Your task to perform on an android device: remove spam from my inbox in the gmail app Image 0: 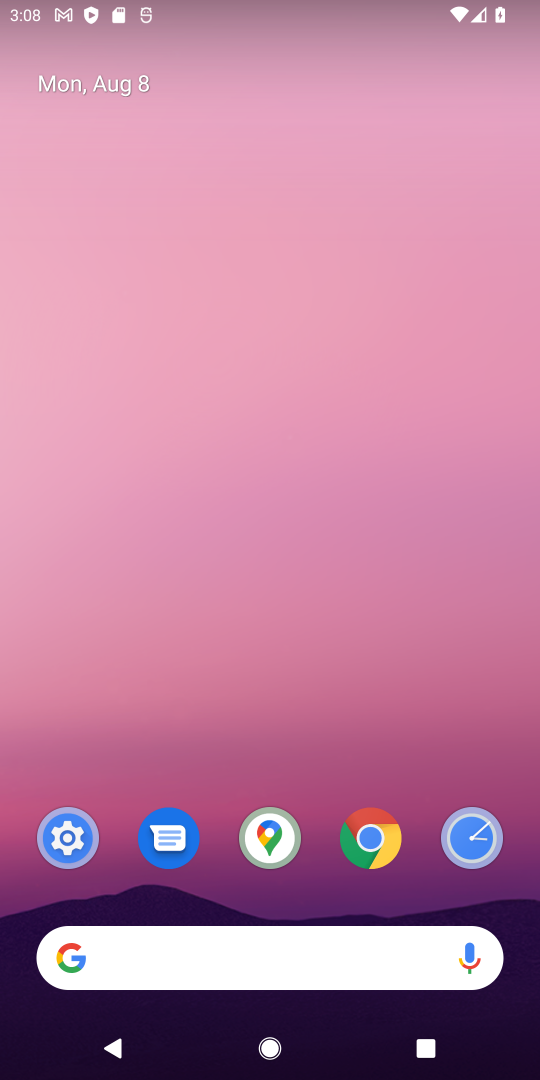
Step 0: drag from (235, 959) to (253, 301)
Your task to perform on an android device: remove spam from my inbox in the gmail app Image 1: 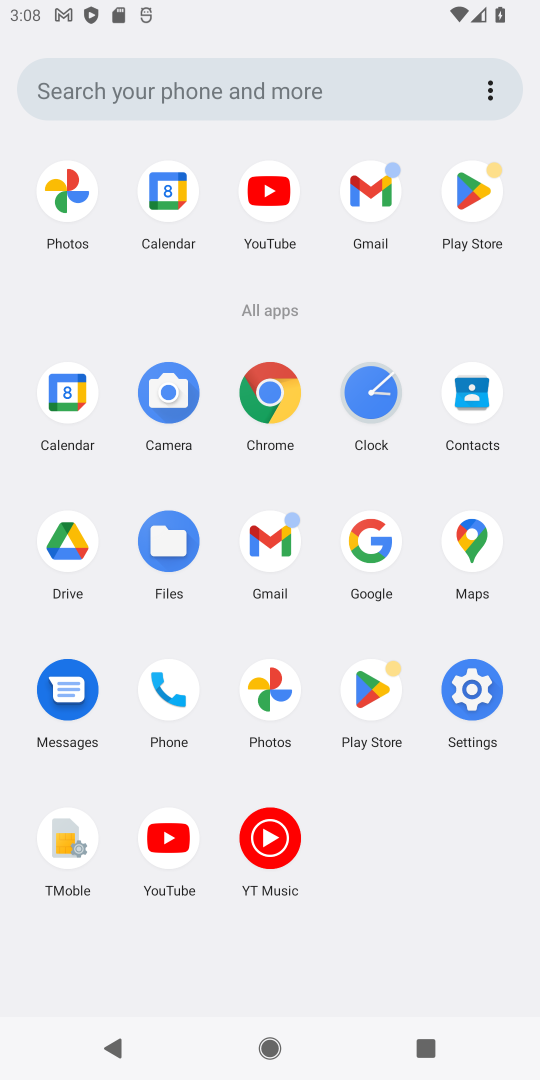
Step 1: click (372, 192)
Your task to perform on an android device: remove spam from my inbox in the gmail app Image 2: 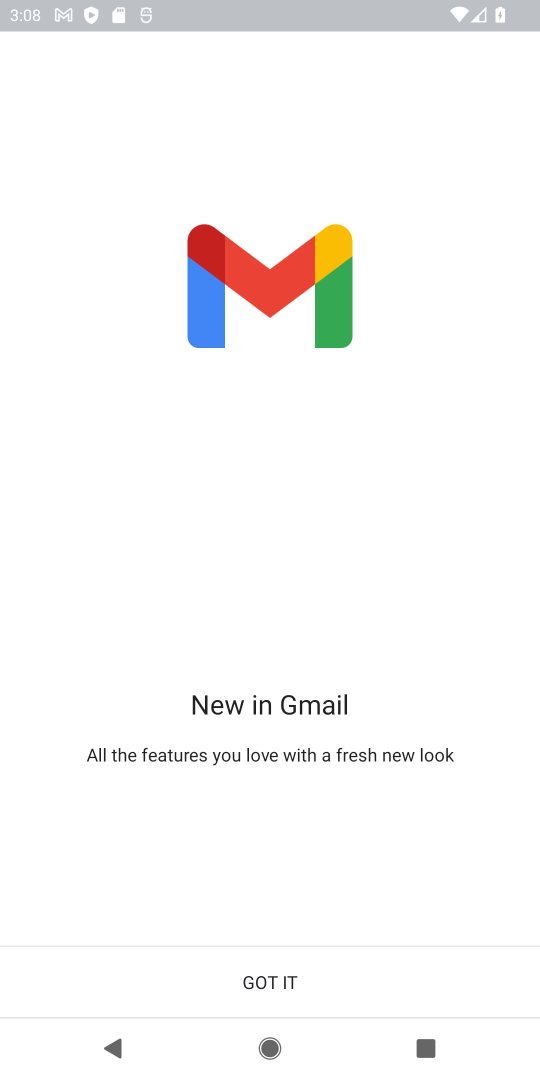
Step 2: click (274, 989)
Your task to perform on an android device: remove spam from my inbox in the gmail app Image 3: 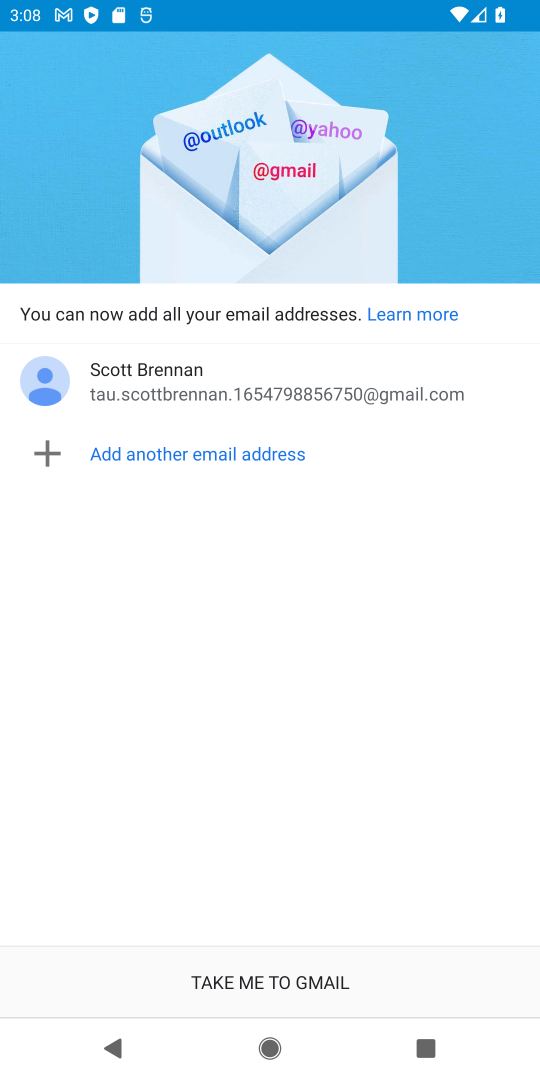
Step 3: click (274, 989)
Your task to perform on an android device: remove spam from my inbox in the gmail app Image 4: 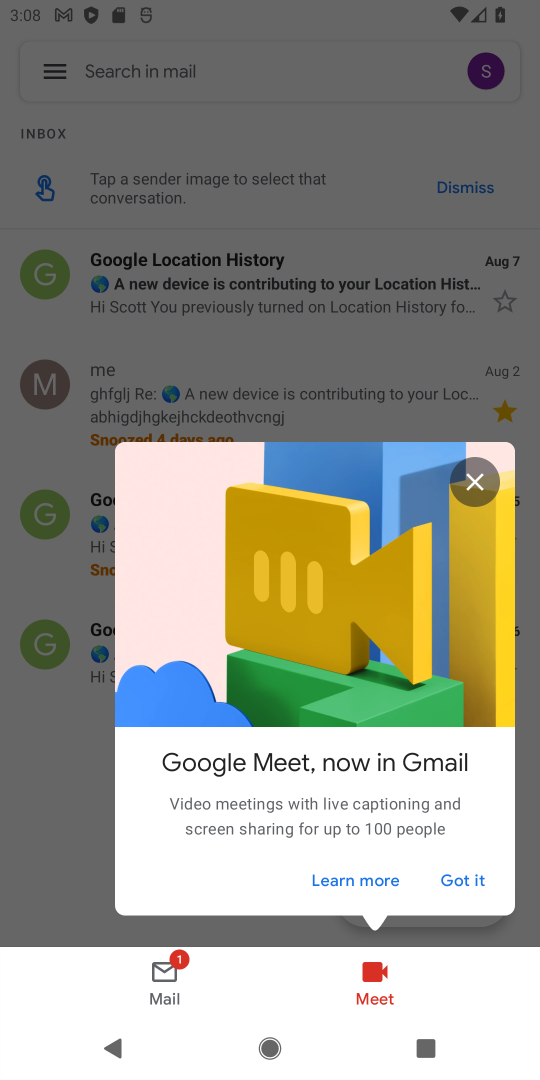
Step 4: click (463, 880)
Your task to perform on an android device: remove spam from my inbox in the gmail app Image 5: 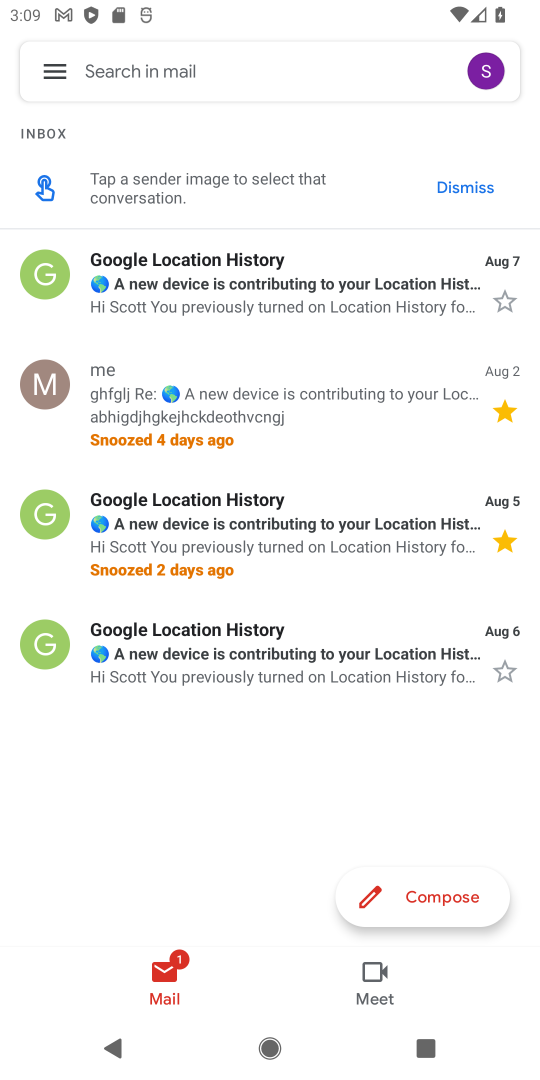
Step 5: click (53, 68)
Your task to perform on an android device: remove spam from my inbox in the gmail app Image 6: 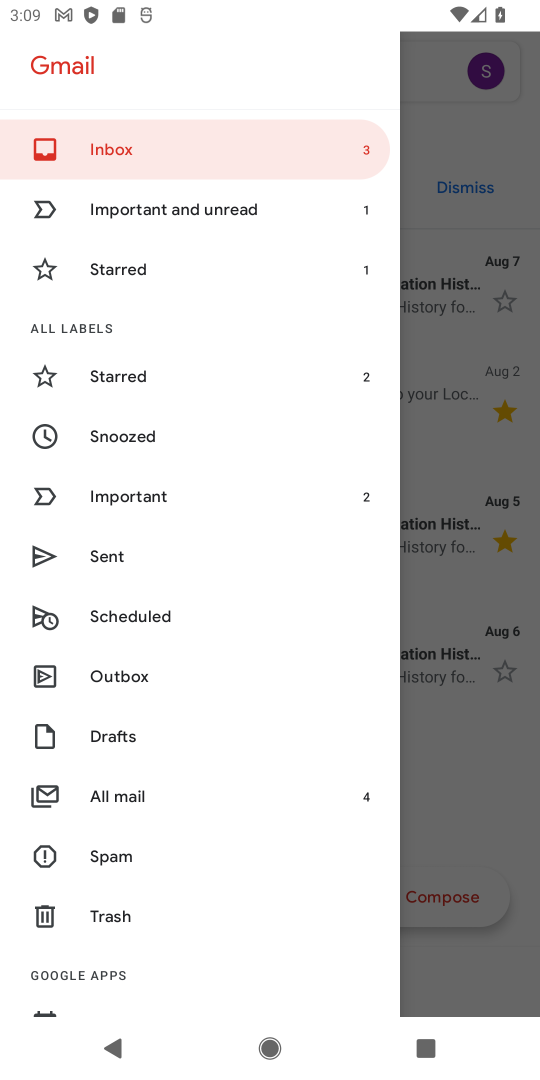
Step 6: click (113, 856)
Your task to perform on an android device: remove spam from my inbox in the gmail app Image 7: 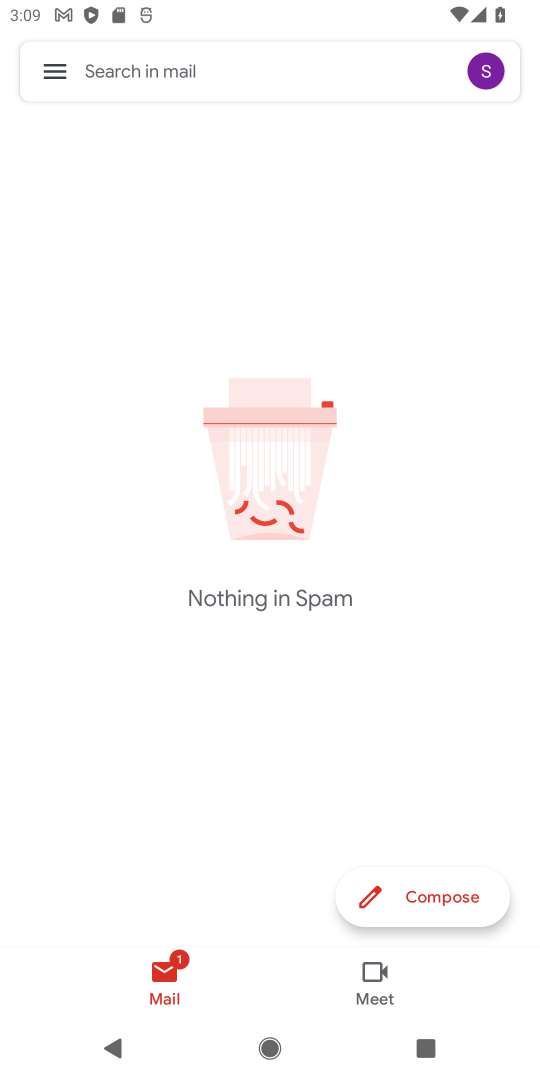
Step 7: task complete